Your task to perform on an android device: turn notification dots off Image 0: 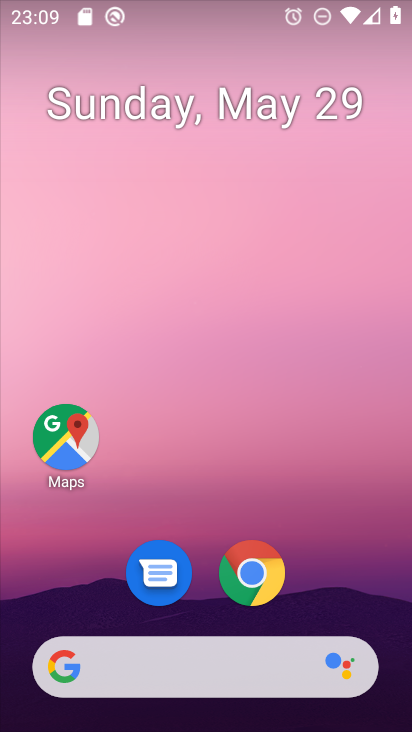
Step 0: drag from (205, 489) to (266, 5)
Your task to perform on an android device: turn notification dots off Image 1: 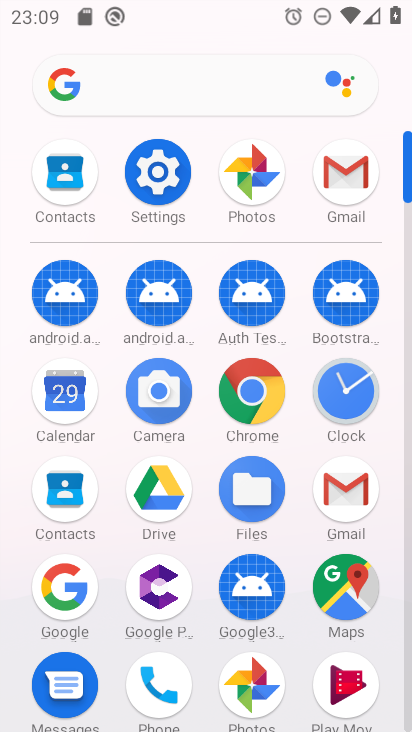
Step 1: click (159, 152)
Your task to perform on an android device: turn notification dots off Image 2: 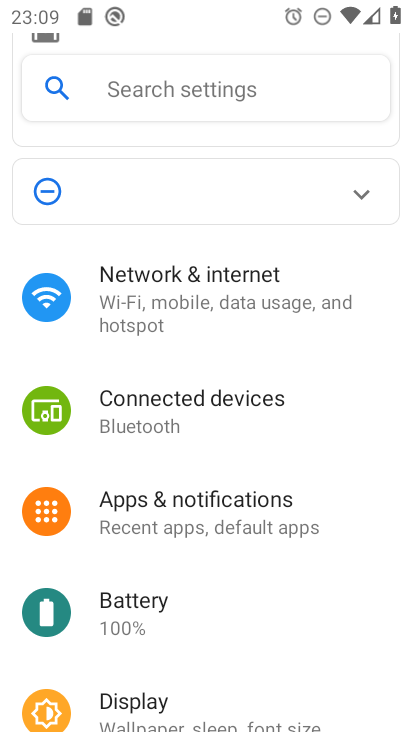
Step 2: click (244, 503)
Your task to perform on an android device: turn notification dots off Image 3: 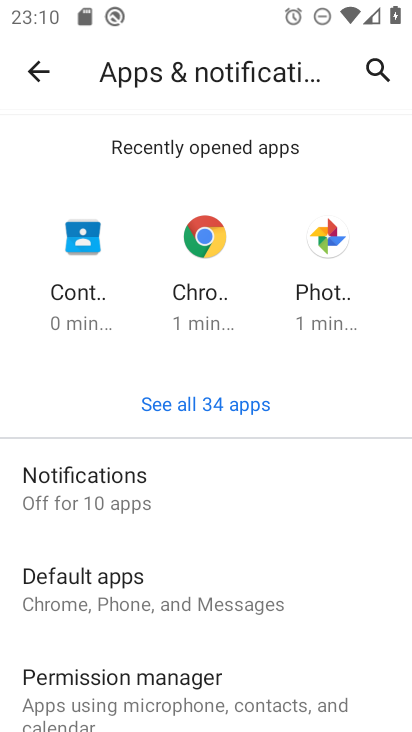
Step 3: click (206, 486)
Your task to perform on an android device: turn notification dots off Image 4: 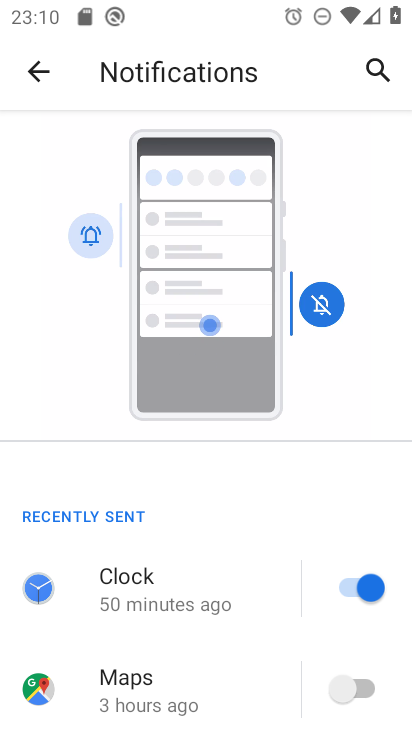
Step 4: drag from (246, 635) to (277, 201)
Your task to perform on an android device: turn notification dots off Image 5: 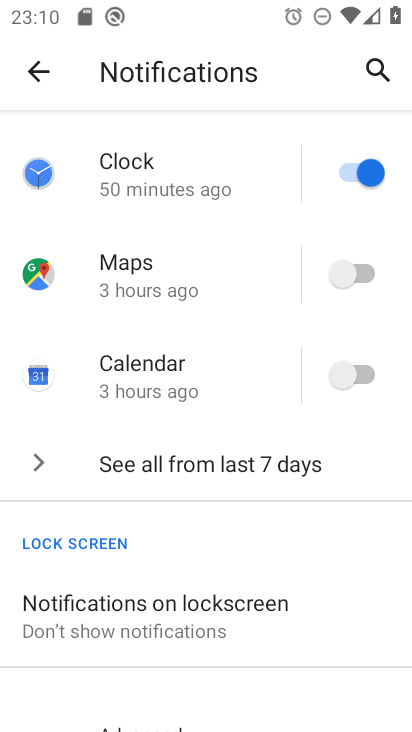
Step 5: click (232, 599)
Your task to perform on an android device: turn notification dots off Image 6: 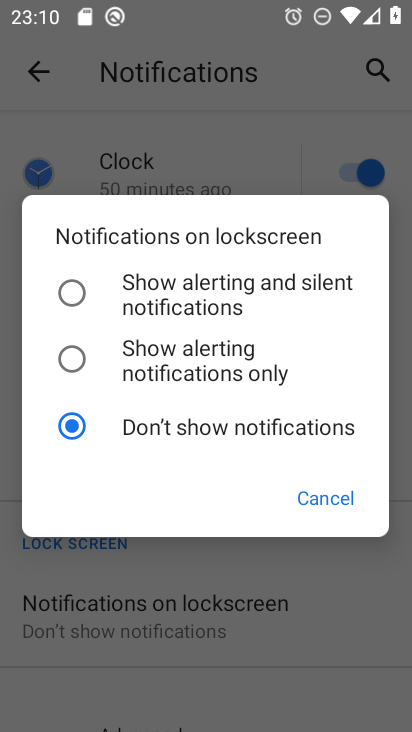
Step 6: click (332, 493)
Your task to perform on an android device: turn notification dots off Image 7: 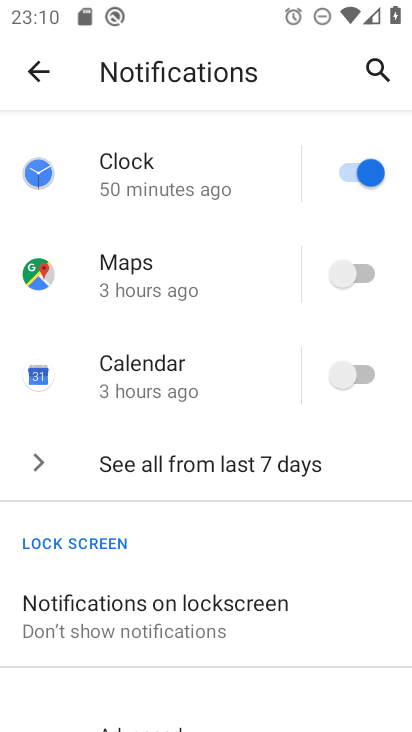
Step 7: drag from (262, 589) to (287, 147)
Your task to perform on an android device: turn notification dots off Image 8: 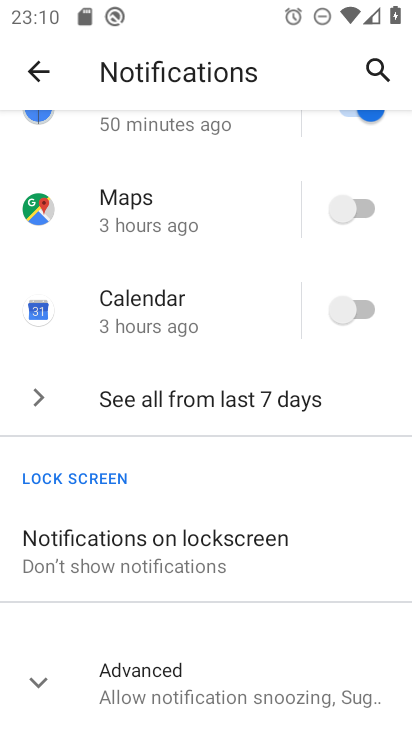
Step 8: click (39, 677)
Your task to perform on an android device: turn notification dots off Image 9: 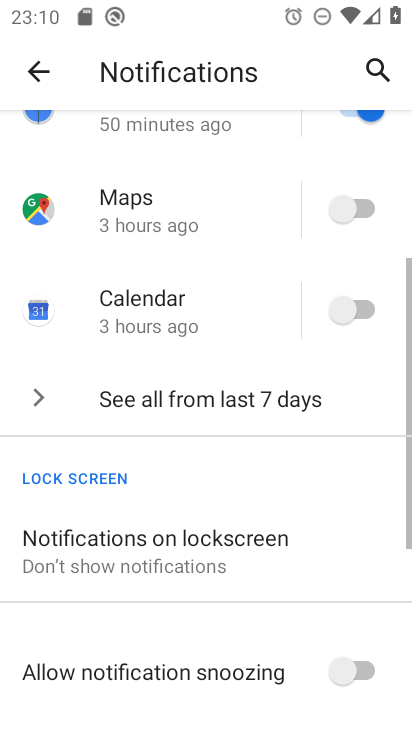
Step 9: task complete